Your task to perform on an android device: Open Reddit.com Image 0: 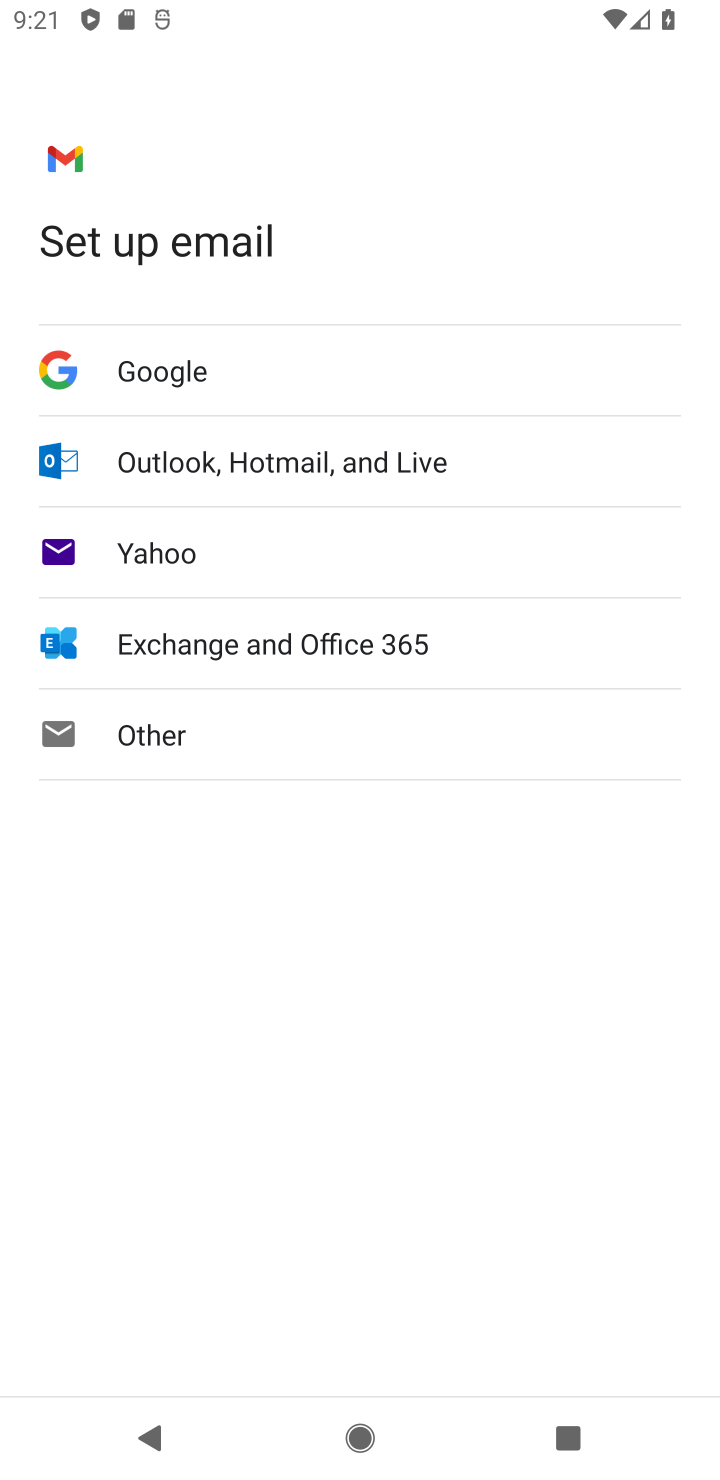
Step 0: press home button
Your task to perform on an android device: Open Reddit.com Image 1: 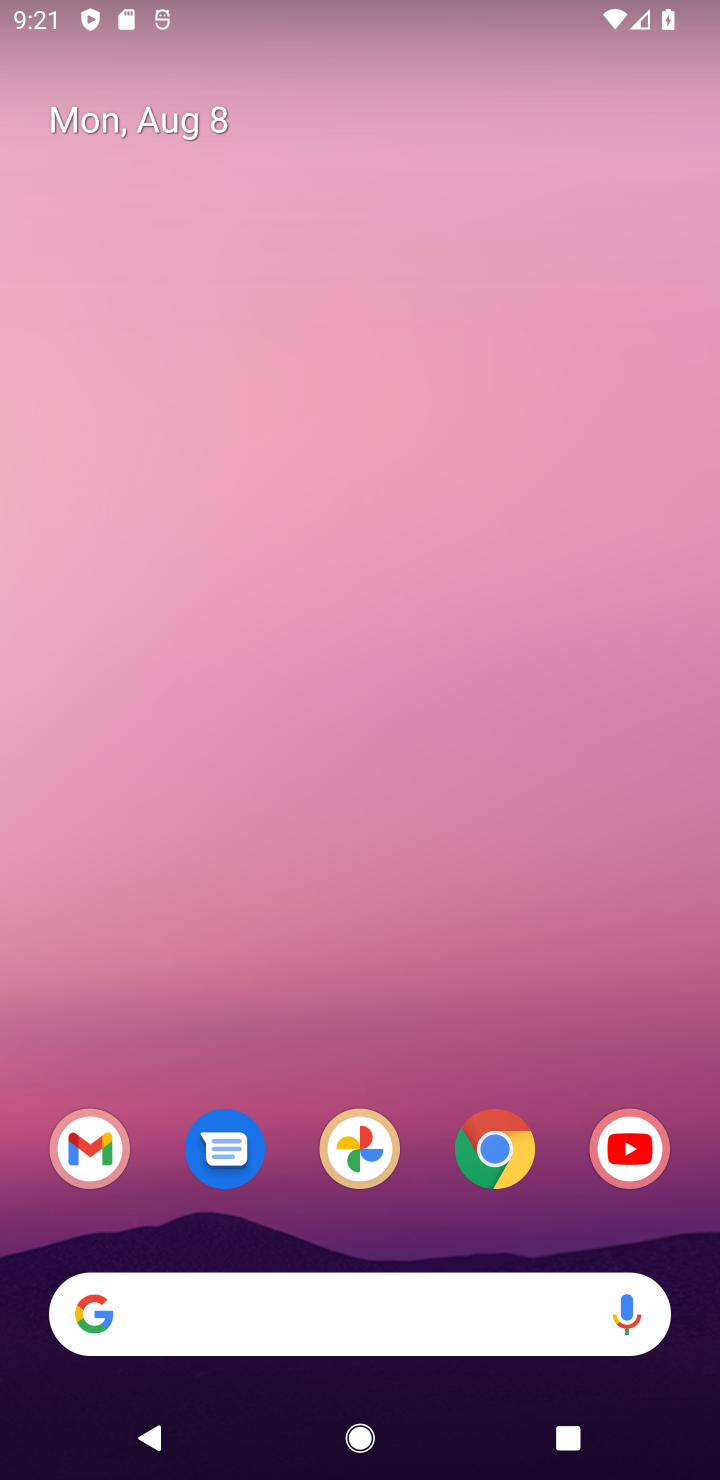
Step 1: drag from (278, 790) to (249, 482)
Your task to perform on an android device: Open Reddit.com Image 2: 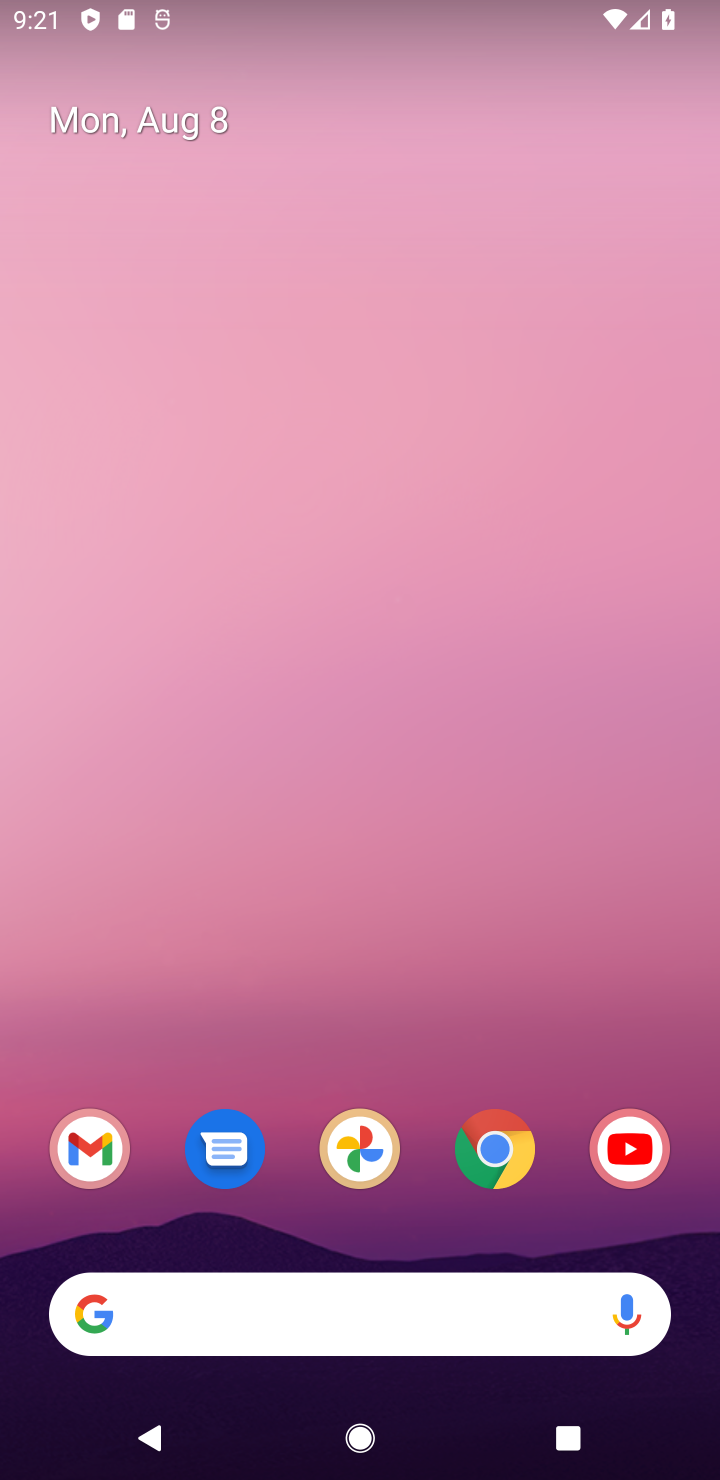
Step 2: drag from (443, 1244) to (386, 548)
Your task to perform on an android device: Open Reddit.com Image 3: 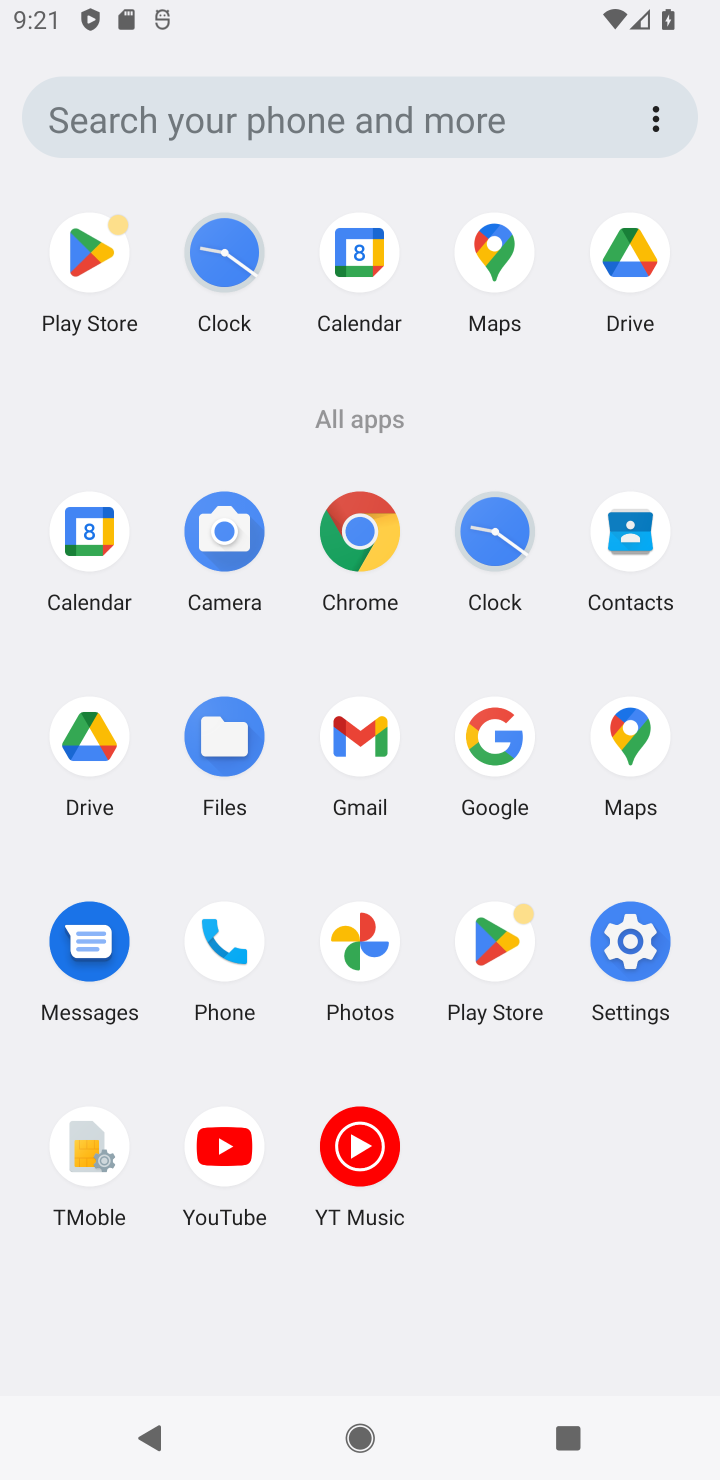
Step 3: click (509, 735)
Your task to perform on an android device: Open Reddit.com Image 4: 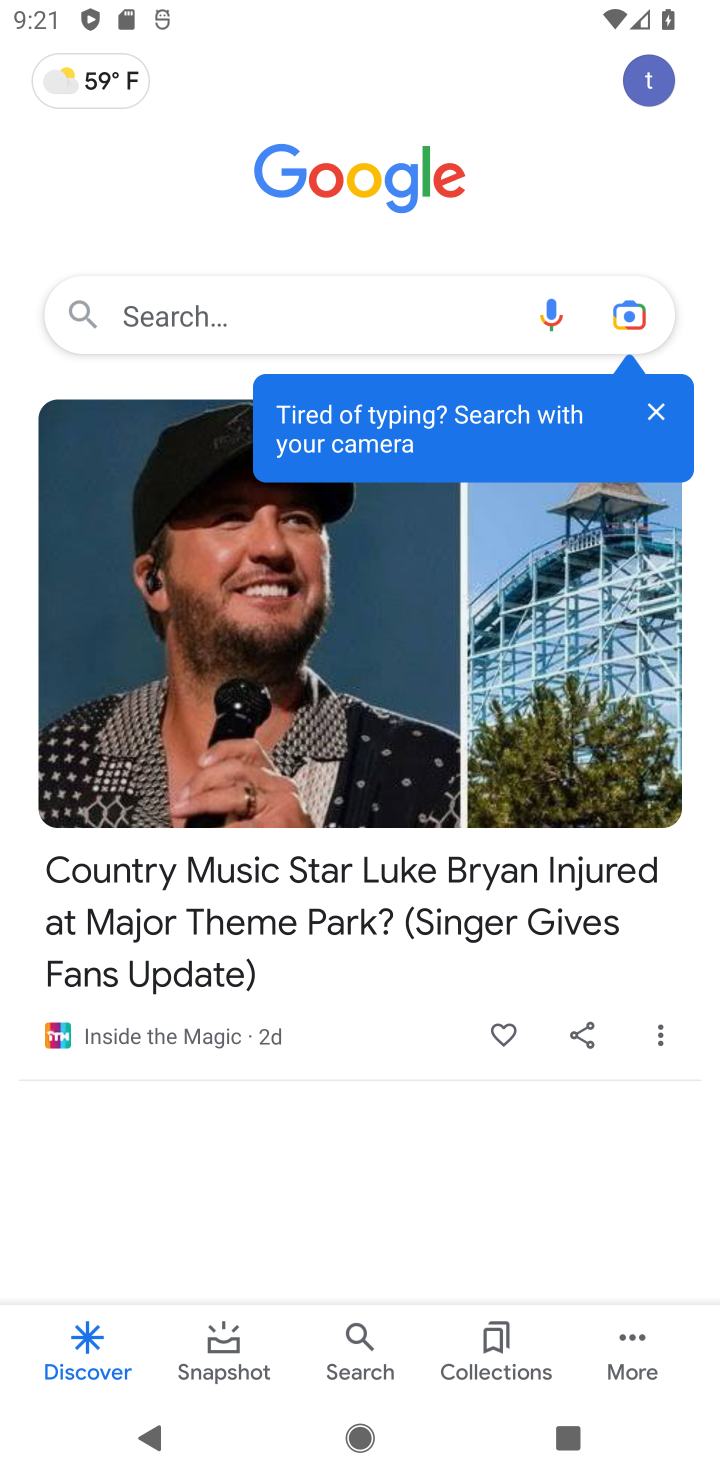
Step 4: click (135, 319)
Your task to perform on an android device: Open Reddit.com Image 5: 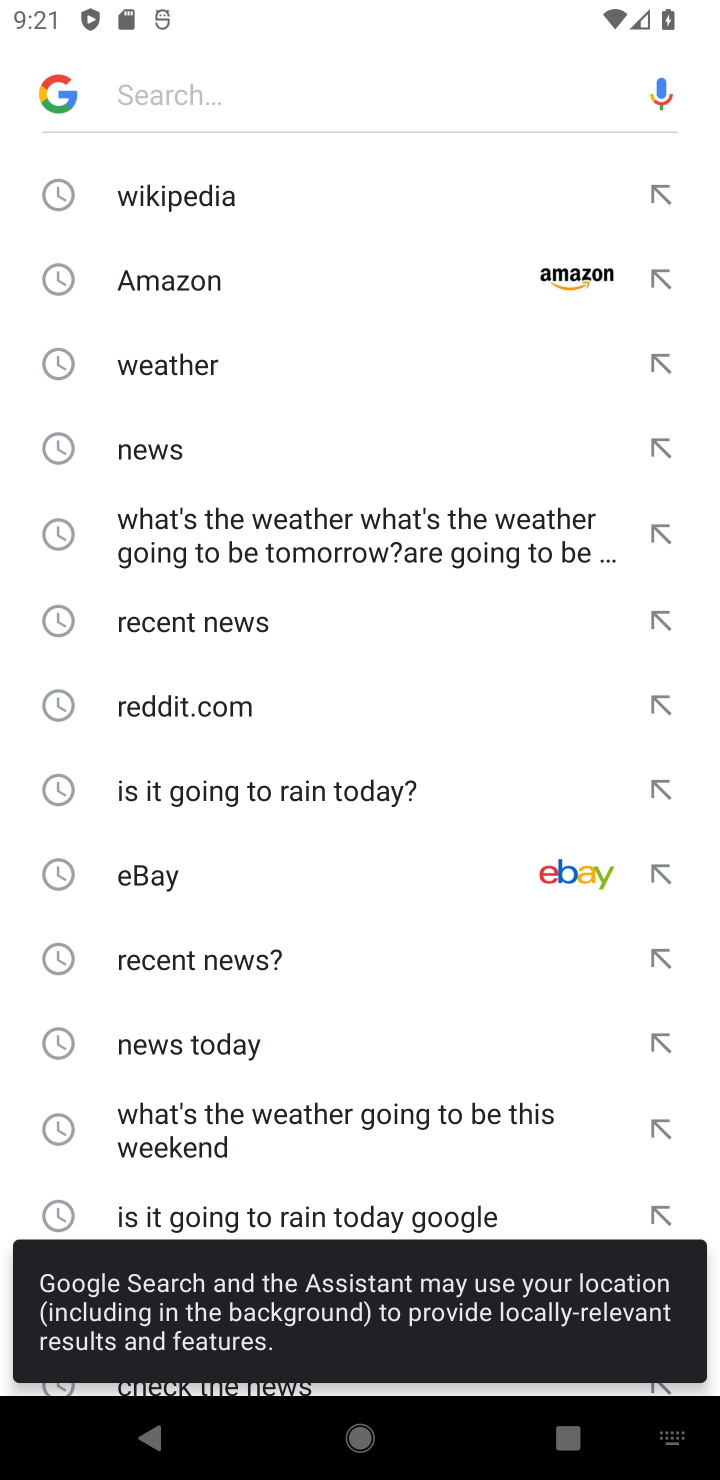
Step 5: click (186, 709)
Your task to perform on an android device: Open Reddit.com Image 6: 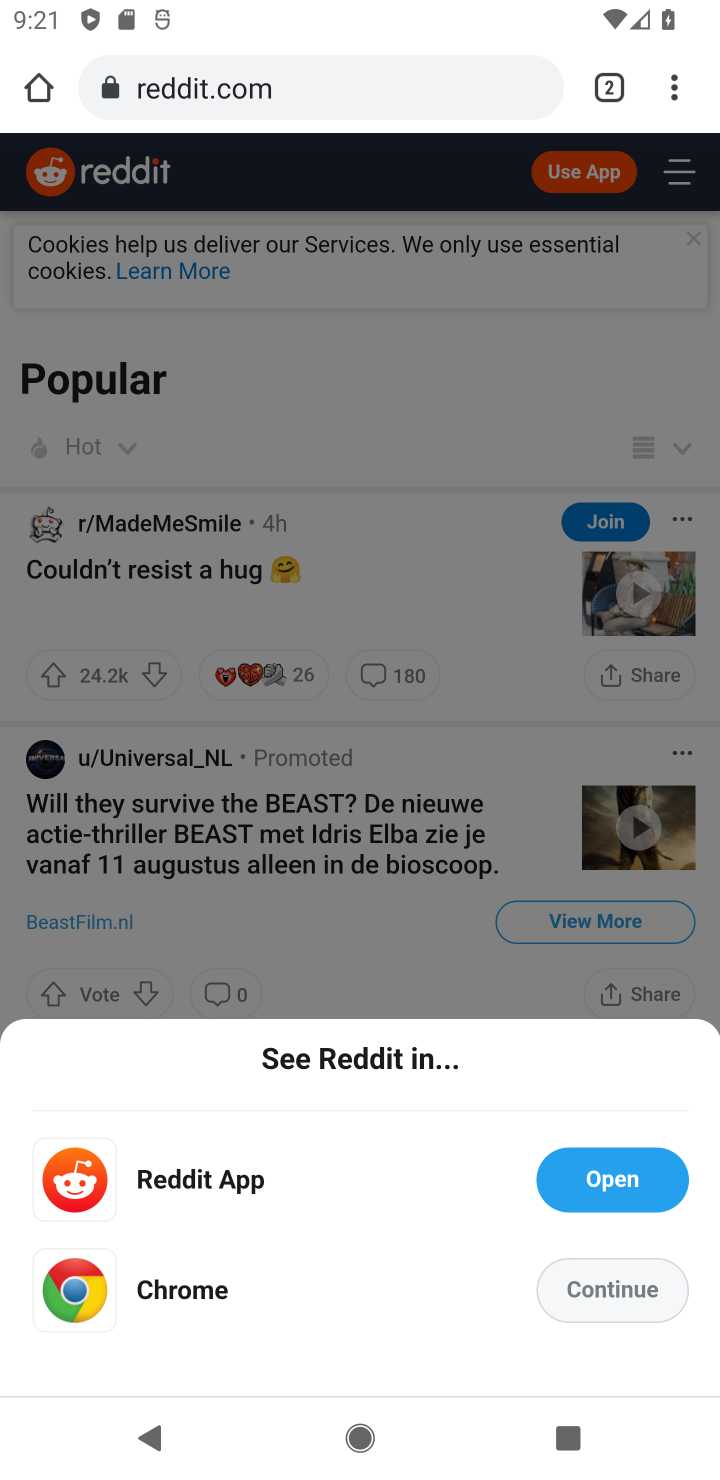
Step 6: click (611, 1188)
Your task to perform on an android device: Open Reddit.com Image 7: 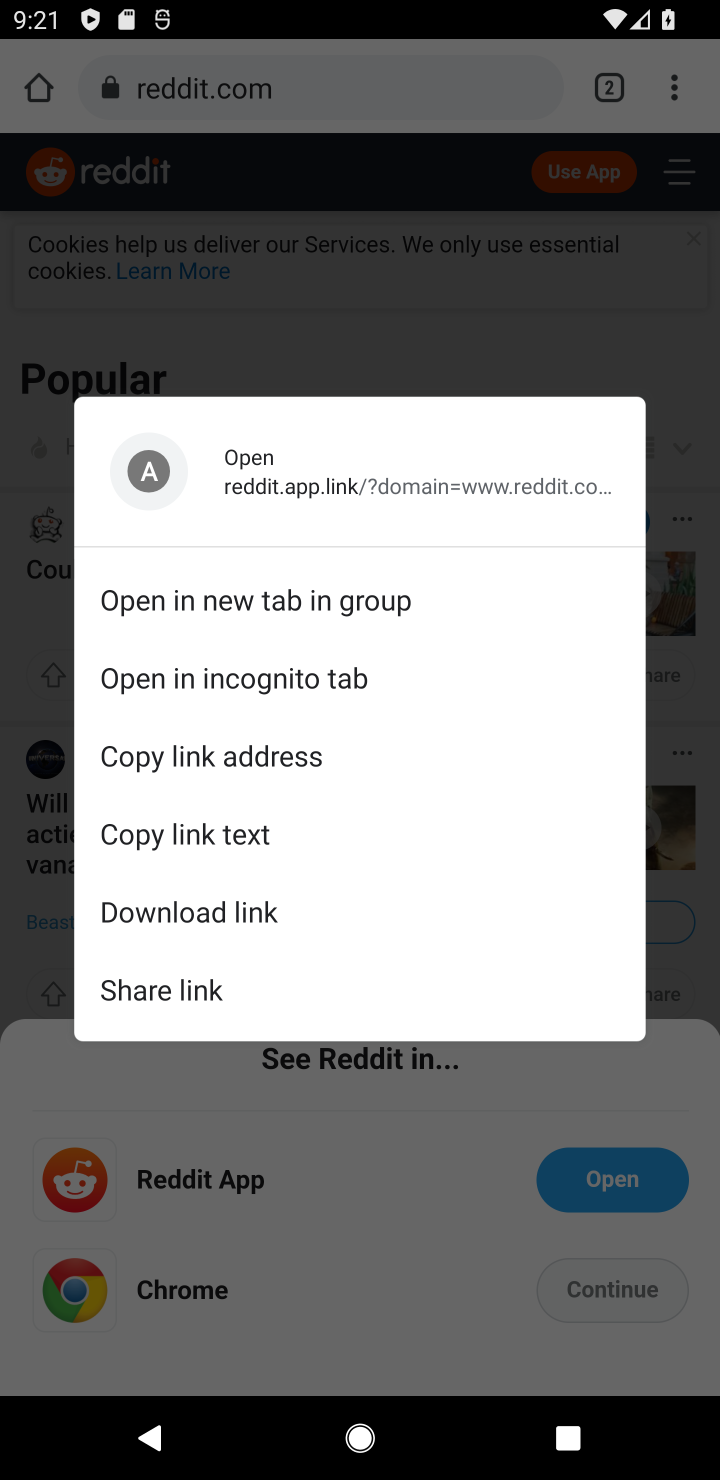
Step 7: task complete